Your task to perform on an android device: turn on notifications settings in the gmail app Image 0: 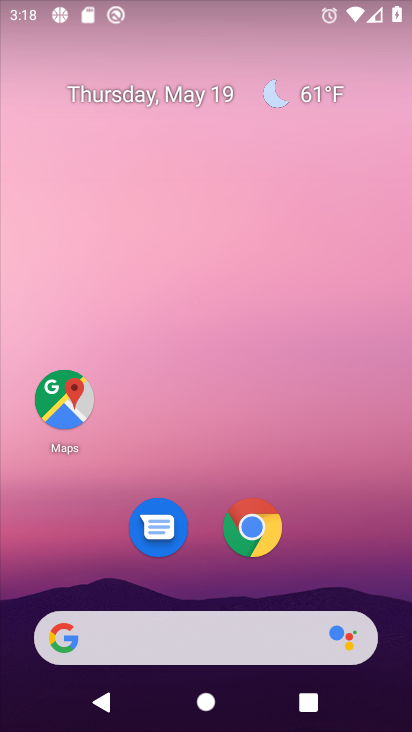
Step 0: drag from (180, 523) to (236, 47)
Your task to perform on an android device: turn on notifications settings in the gmail app Image 1: 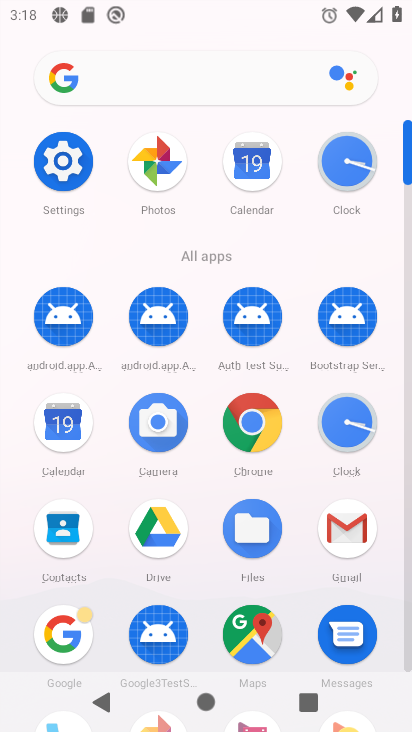
Step 1: click (352, 536)
Your task to perform on an android device: turn on notifications settings in the gmail app Image 2: 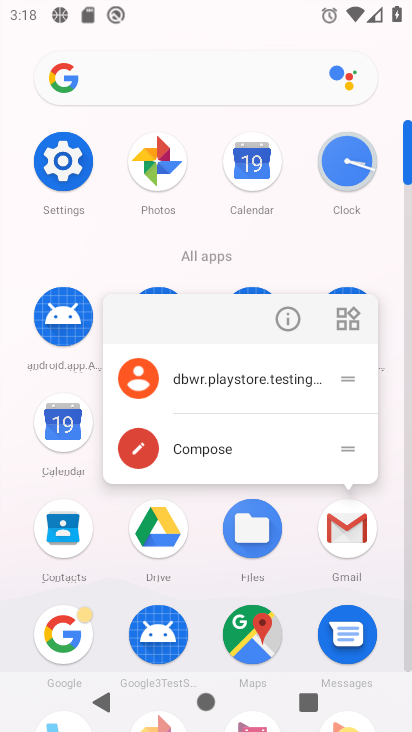
Step 2: click (282, 316)
Your task to perform on an android device: turn on notifications settings in the gmail app Image 3: 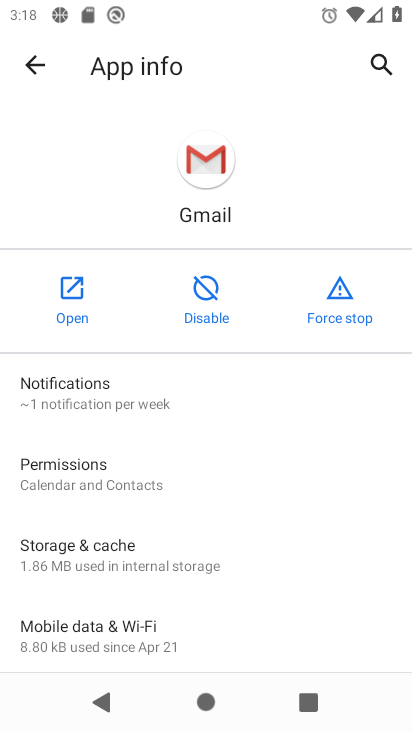
Step 3: click (115, 393)
Your task to perform on an android device: turn on notifications settings in the gmail app Image 4: 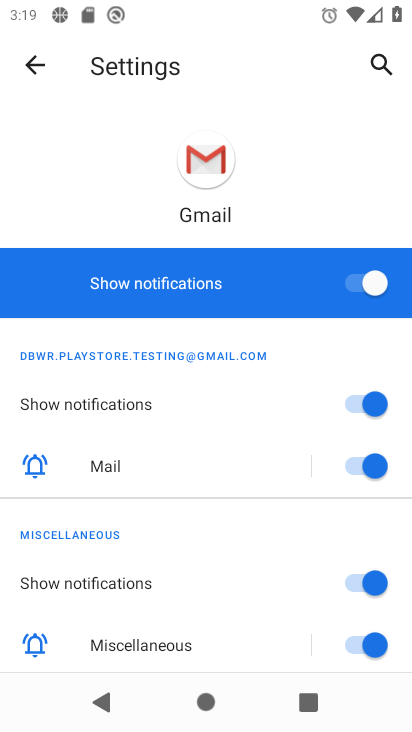
Step 4: task complete